Your task to perform on an android device: What's on my calendar tomorrow? Image 0: 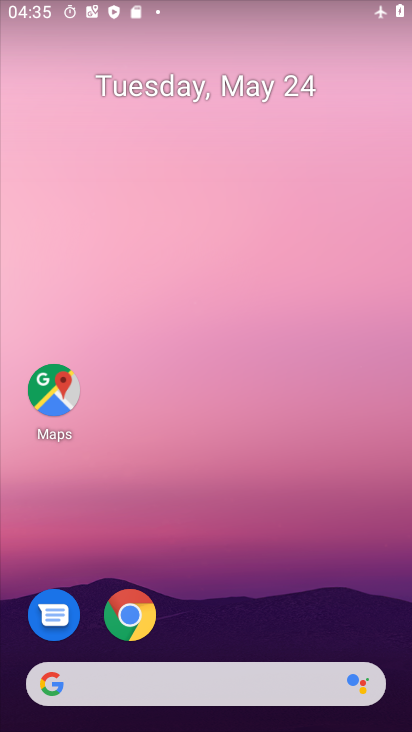
Step 0: drag from (266, 570) to (339, 90)
Your task to perform on an android device: What's on my calendar tomorrow? Image 1: 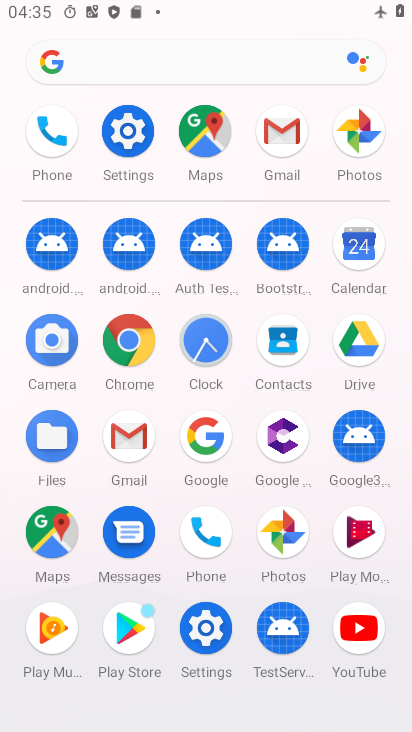
Step 1: click (362, 282)
Your task to perform on an android device: What's on my calendar tomorrow? Image 2: 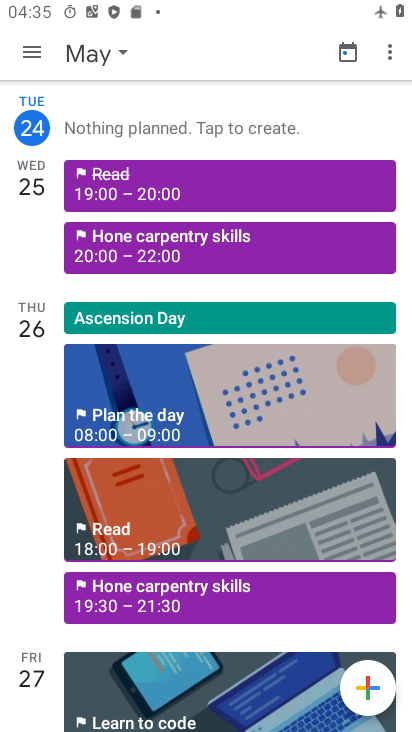
Step 2: click (174, 239)
Your task to perform on an android device: What's on my calendar tomorrow? Image 3: 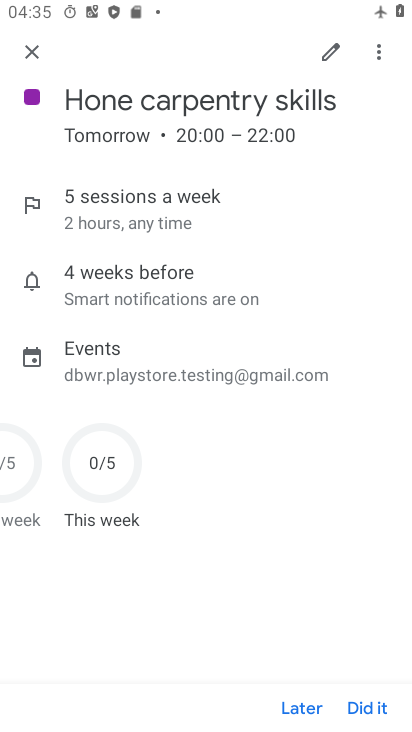
Step 3: task complete